Your task to perform on an android device: Go to ESPN.com Image 0: 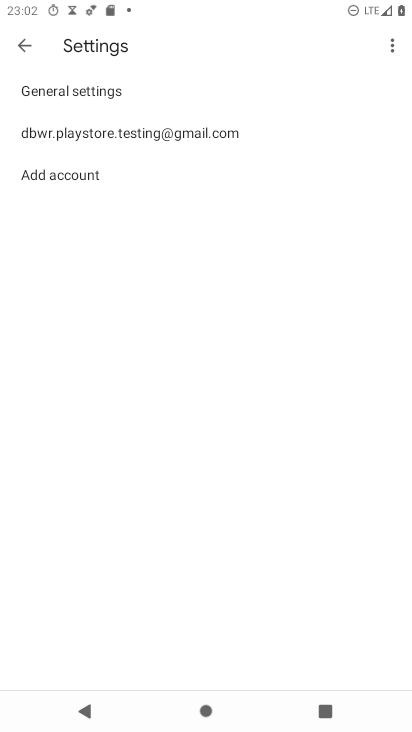
Step 0: press back button
Your task to perform on an android device: Go to ESPN.com Image 1: 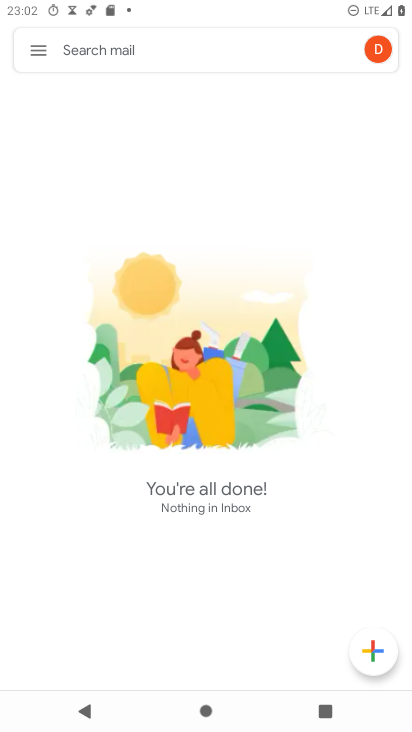
Step 1: press back button
Your task to perform on an android device: Go to ESPN.com Image 2: 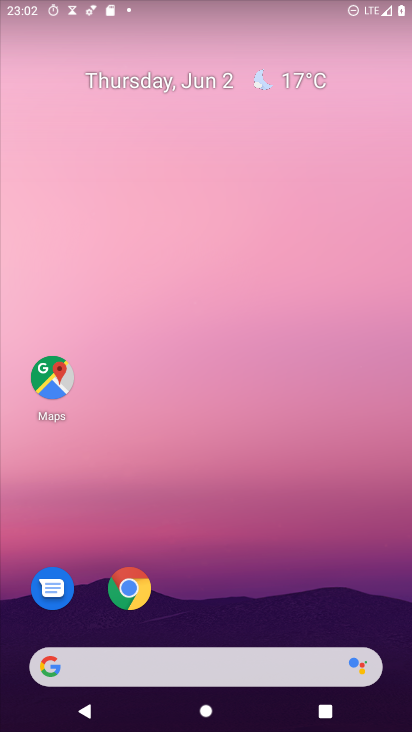
Step 2: click (119, 586)
Your task to perform on an android device: Go to ESPN.com Image 3: 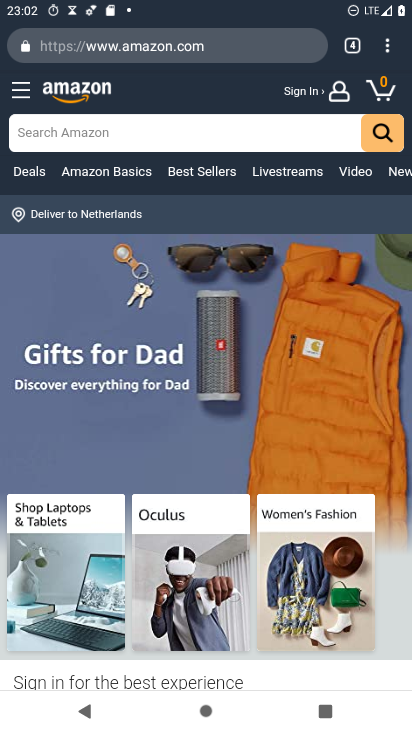
Step 3: click (351, 48)
Your task to perform on an android device: Go to ESPN.com Image 4: 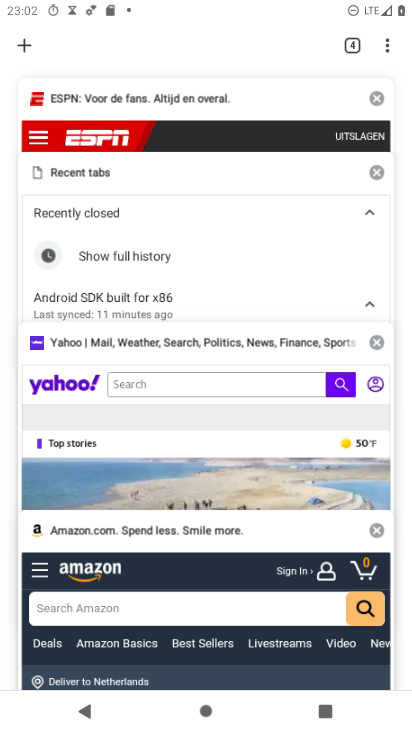
Step 4: click (97, 129)
Your task to perform on an android device: Go to ESPN.com Image 5: 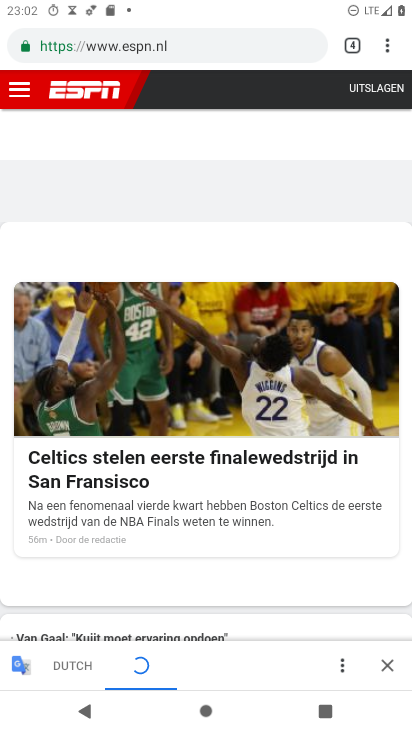
Step 5: task complete